Your task to perform on an android device: Go to Android settings Image 0: 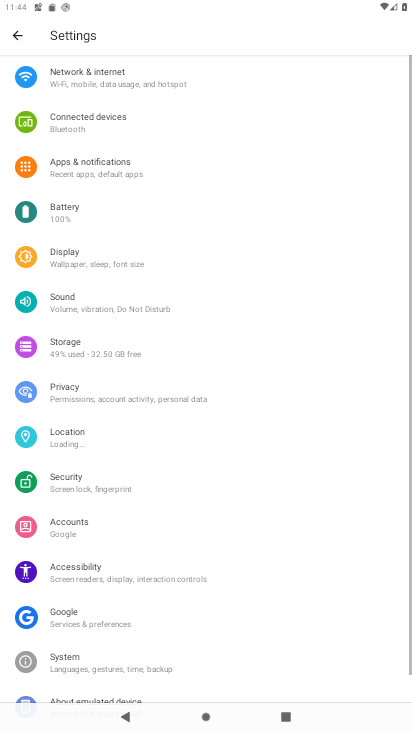
Step 0: drag from (163, 590) to (212, 238)
Your task to perform on an android device: Go to Android settings Image 1: 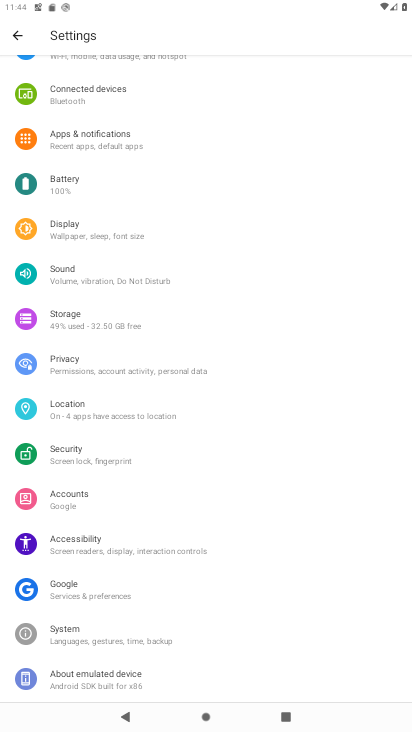
Step 1: click (102, 673)
Your task to perform on an android device: Go to Android settings Image 2: 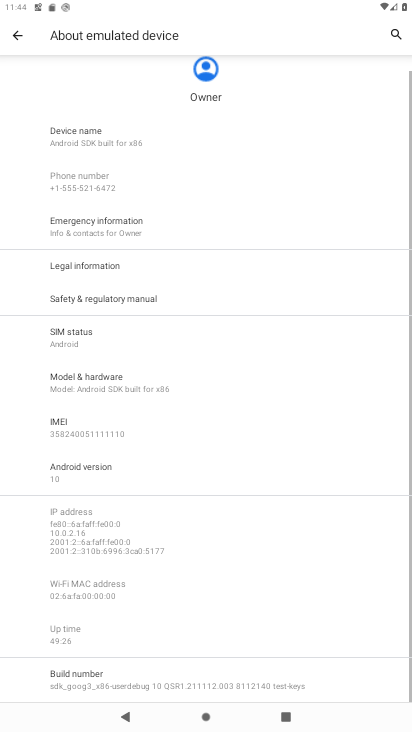
Step 2: click (92, 474)
Your task to perform on an android device: Go to Android settings Image 3: 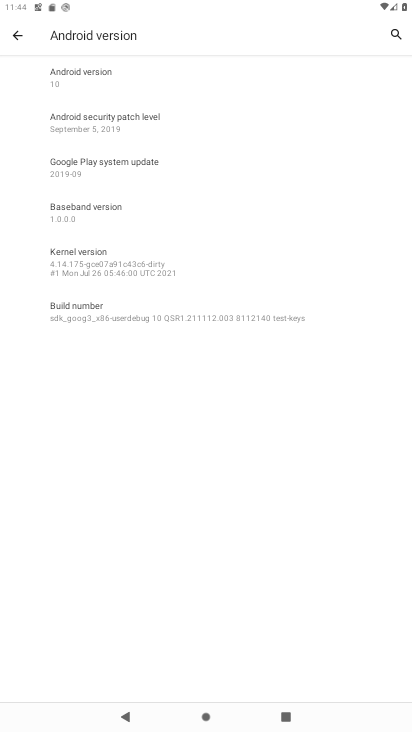
Step 3: task complete